Your task to perform on an android device: toggle wifi Image 0: 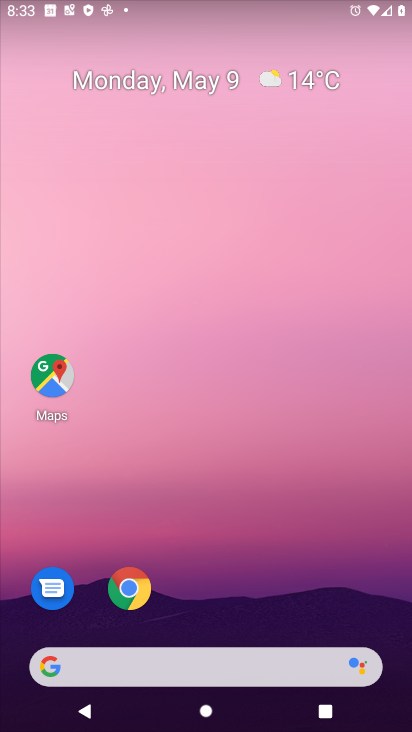
Step 0: drag from (344, 617) to (217, 29)
Your task to perform on an android device: toggle wifi Image 1: 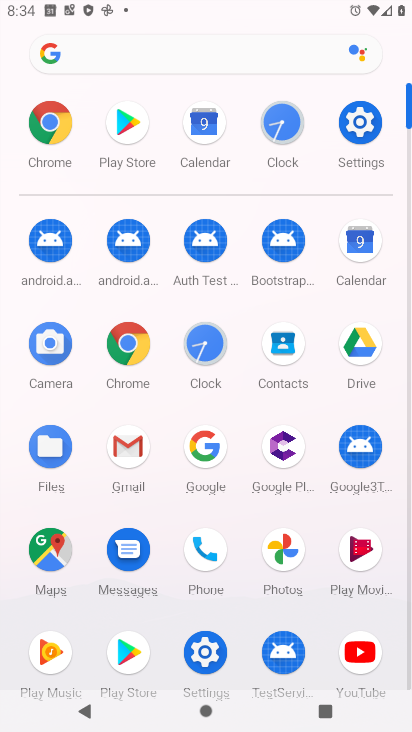
Step 1: drag from (199, 8) to (203, 527)
Your task to perform on an android device: toggle wifi Image 2: 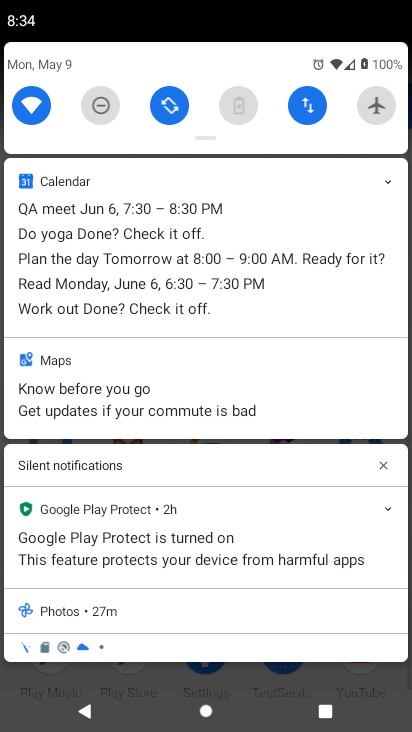
Step 2: click (24, 104)
Your task to perform on an android device: toggle wifi Image 3: 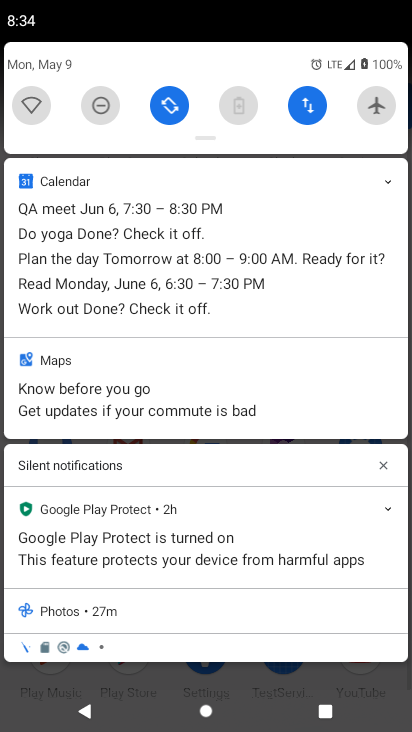
Step 3: task complete